Your task to perform on an android device: create a new album in the google photos Image 0: 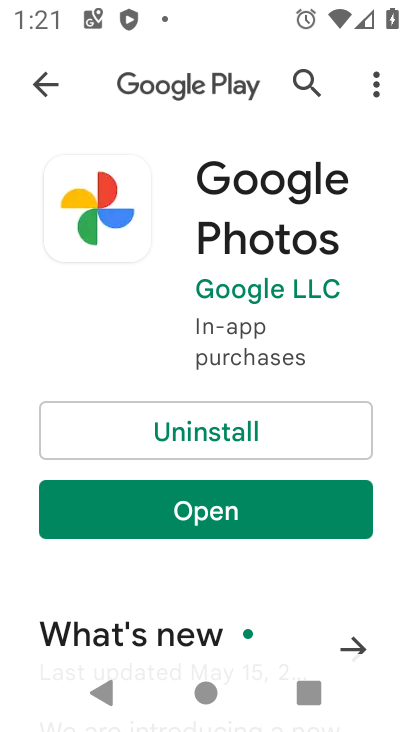
Step 0: press home button
Your task to perform on an android device: create a new album in the google photos Image 1: 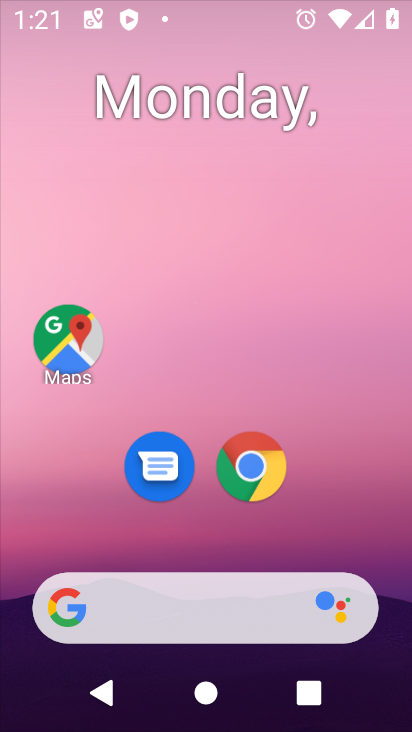
Step 1: drag from (377, 613) to (315, 32)
Your task to perform on an android device: create a new album in the google photos Image 2: 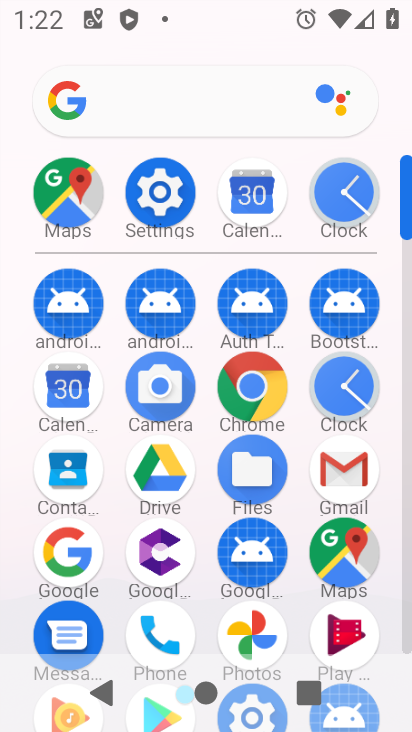
Step 2: click (260, 618)
Your task to perform on an android device: create a new album in the google photos Image 3: 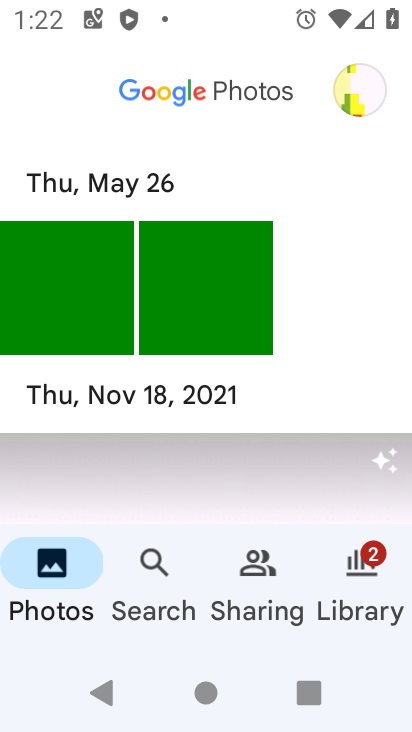
Step 3: click (113, 306)
Your task to perform on an android device: create a new album in the google photos Image 4: 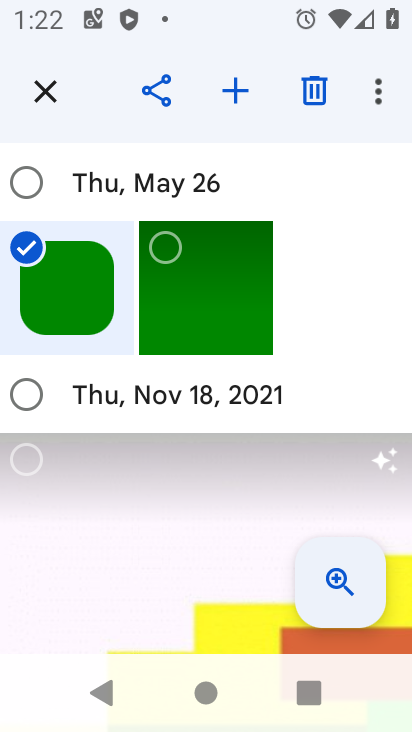
Step 4: click (210, 304)
Your task to perform on an android device: create a new album in the google photos Image 5: 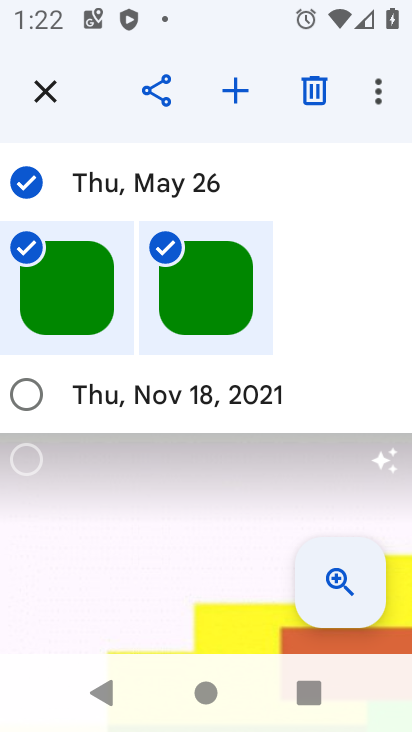
Step 5: click (248, 96)
Your task to perform on an android device: create a new album in the google photos Image 6: 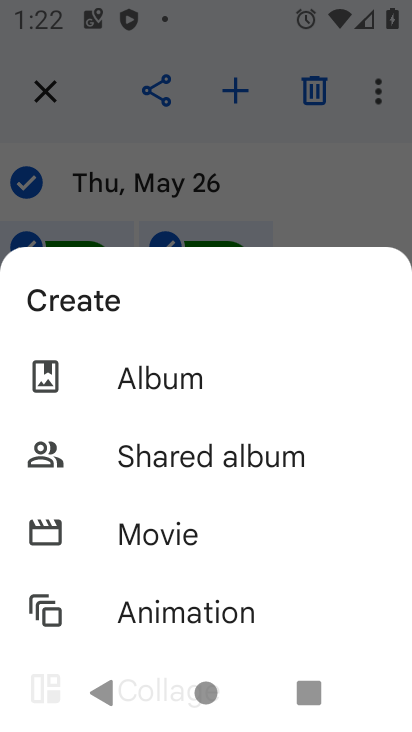
Step 6: click (186, 376)
Your task to perform on an android device: create a new album in the google photos Image 7: 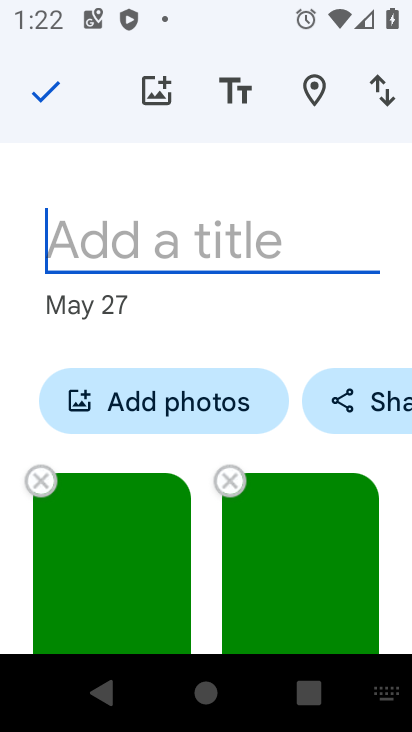
Step 7: type "Tssssss"
Your task to perform on an android device: create a new album in the google photos Image 8: 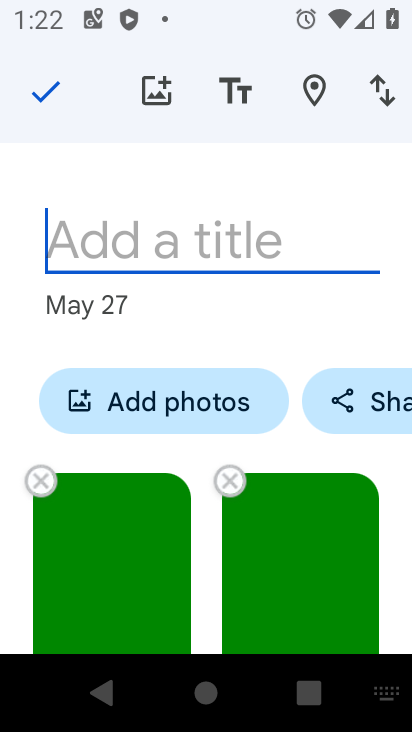
Step 8: click (36, 100)
Your task to perform on an android device: create a new album in the google photos Image 9: 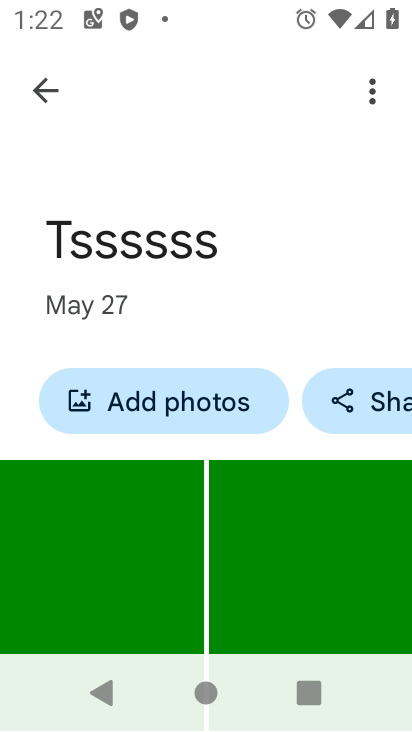
Step 9: task complete